Your task to perform on an android device: Show me productivity apps on the Play Store Image 0: 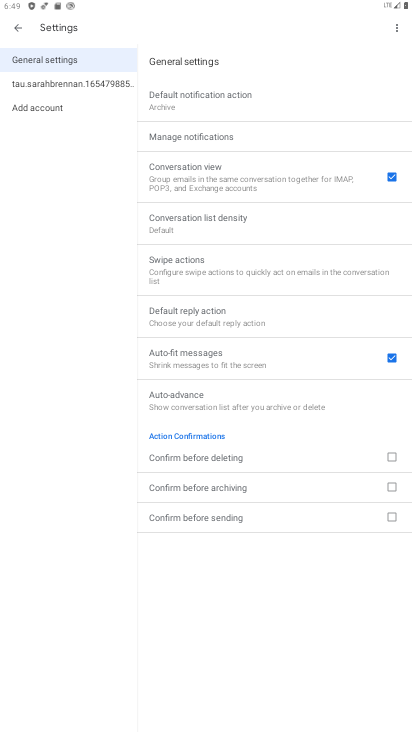
Step 0: press home button
Your task to perform on an android device: Show me productivity apps on the Play Store Image 1: 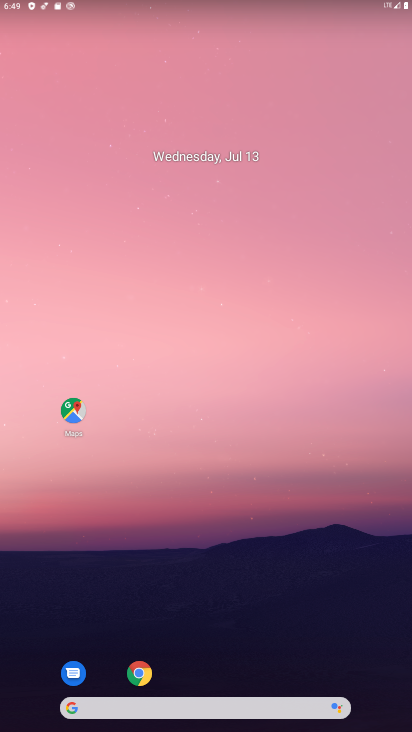
Step 1: drag from (323, 618) to (376, 0)
Your task to perform on an android device: Show me productivity apps on the Play Store Image 2: 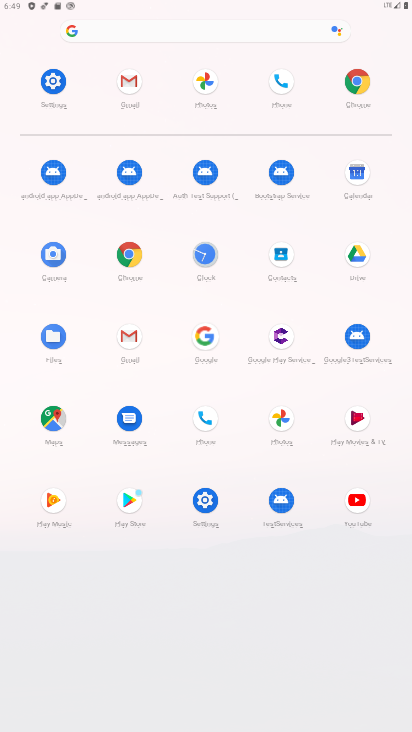
Step 2: click (132, 514)
Your task to perform on an android device: Show me productivity apps on the Play Store Image 3: 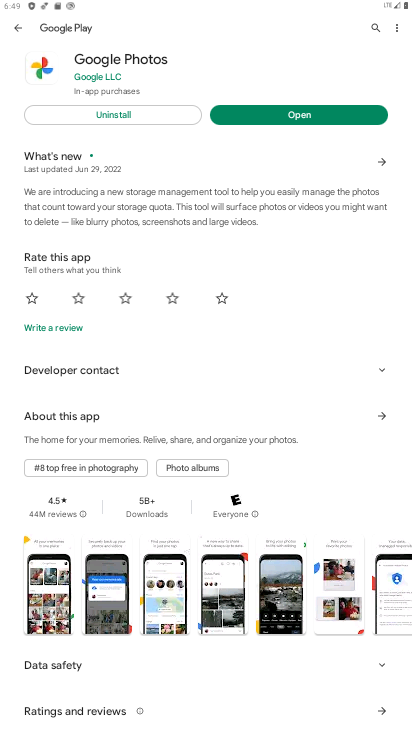
Step 3: click (20, 27)
Your task to perform on an android device: Show me productivity apps on the Play Store Image 4: 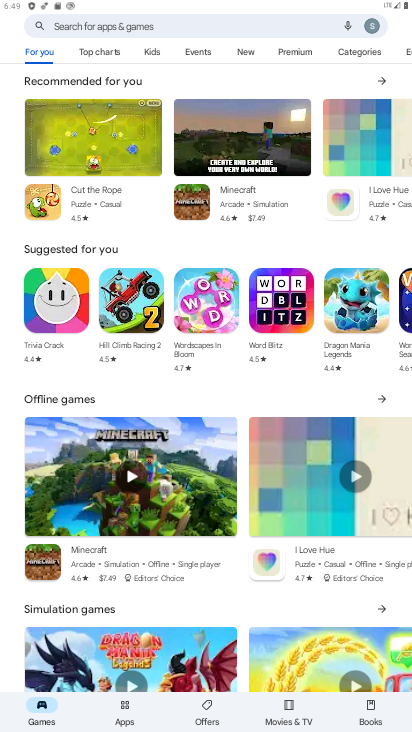
Step 4: click (208, 17)
Your task to perform on an android device: Show me productivity apps on the Play Store Image 5: 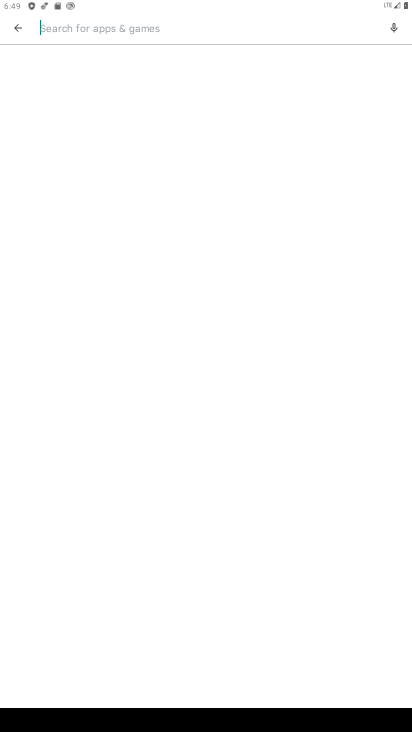
Step 5: type "productivity apps "
Your task to perform on an android device: Show me productivity apps on the Play Store Image 6: 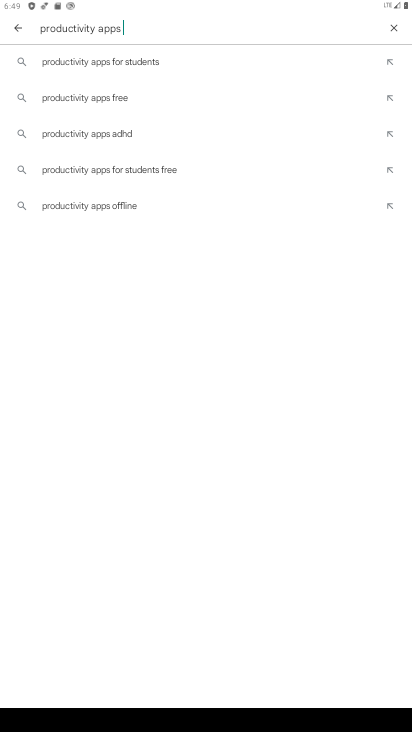
Step 6: click (104, 89)
Your task to perform on an android device: Show me productivity apps on the Play Store Image 7: 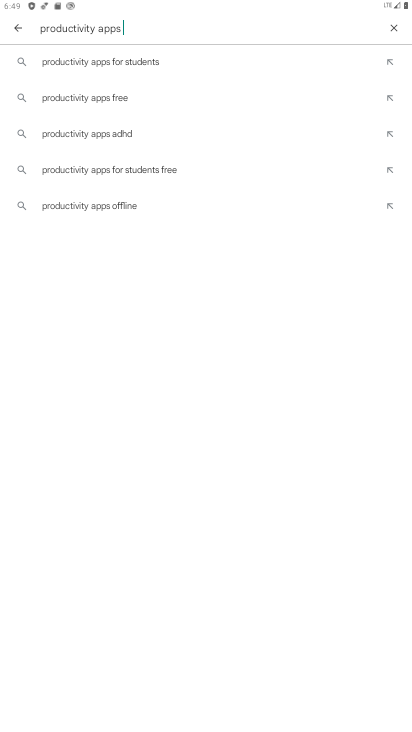
Step 7: click (110, 101)
Your task to perform on an android device: Show me productivity apps on the Play Store Image 8: 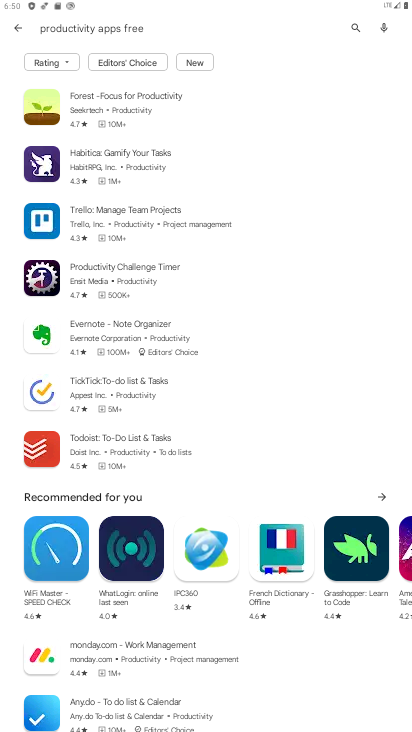
Step 8: task complete